Your task to perform on an android device: Open Google Image 0: 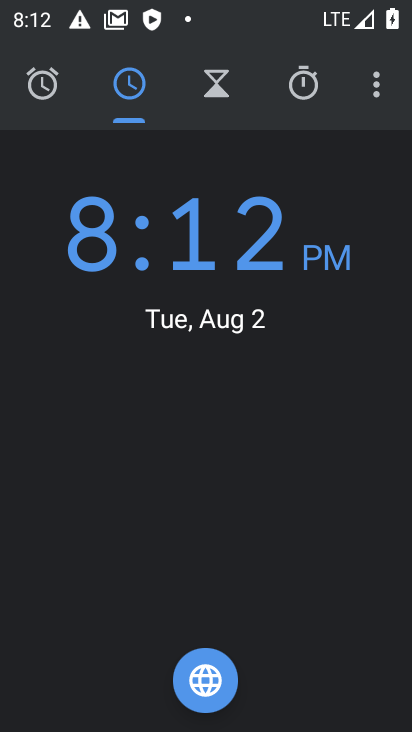
Step 0: press home button
Your task to perform on an android device: Open Google Image 1: 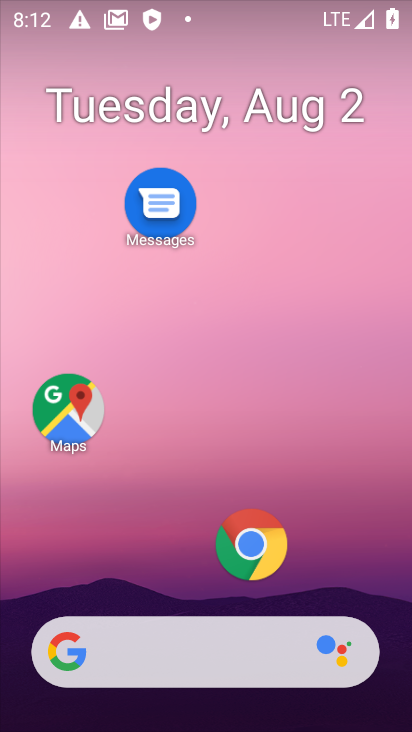
Step 1: drag from (179, 547) to (184, 123)
Your task to perform on an android device: Open Google Image 2: 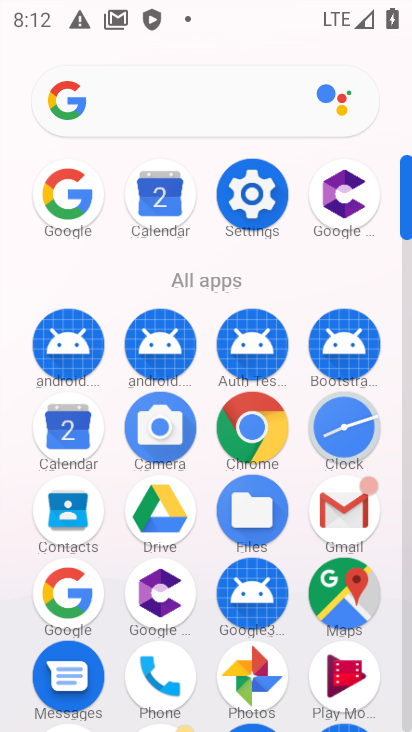
Step 2: click (81, 203)
Your task to perform on an android device: Open Google Image 3: 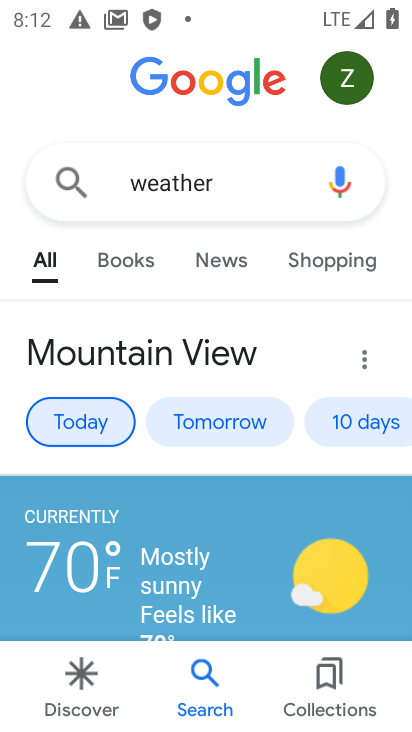
Step 3: task complete